Your task to perform on an android device: Open calendar and show me the third week of next month Image 0: 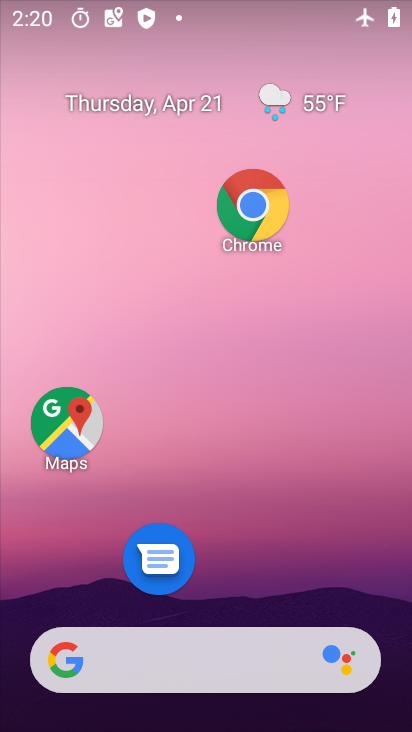
Step 0: click (219, 650)
Your task to perform on an android device: Open calendar and show me the third week of next month Image 1: 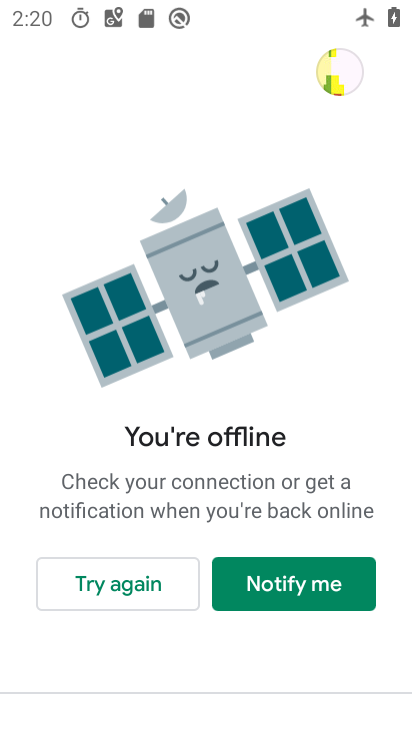
Step 1: press home button
Your task to perform on an android device: Open calendar and show me the third week of next month Image 2: 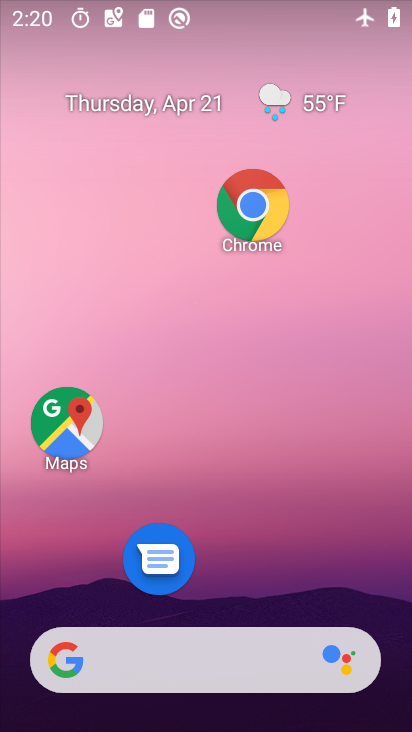
Step 2: drag from (203, 620) to (219, 11)
Your task to perform on an android device: Open calendar and show me the third week of next month Image 3: 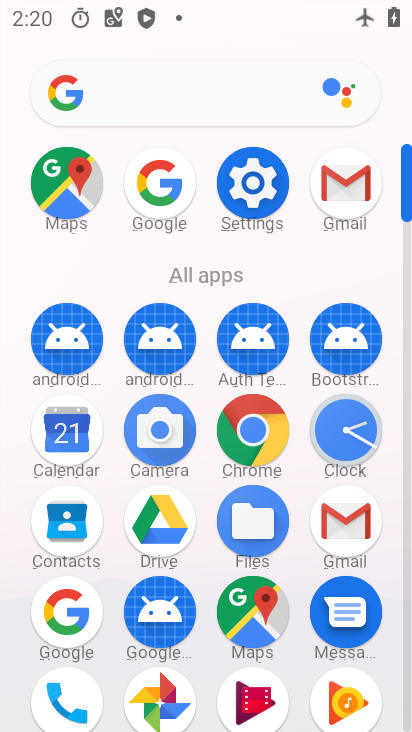
Step 3: click (64, 433)
Your task to perform on an android device: Open calendar and show me the third week of next month Image 4: 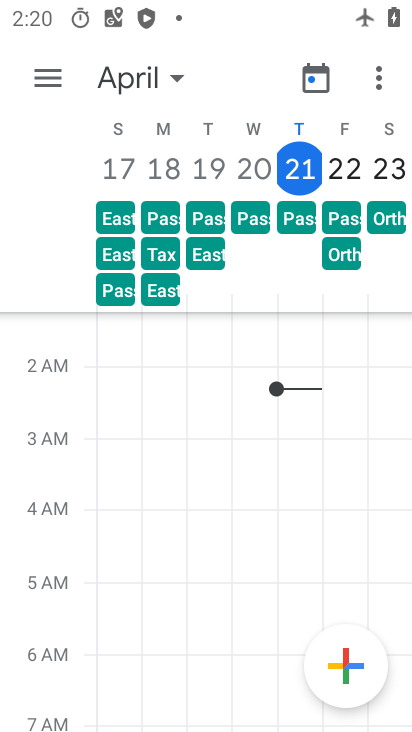
Step 4: task complete